Your task to perform on an android device: turn vacation reply on in the gmail app Image 0: 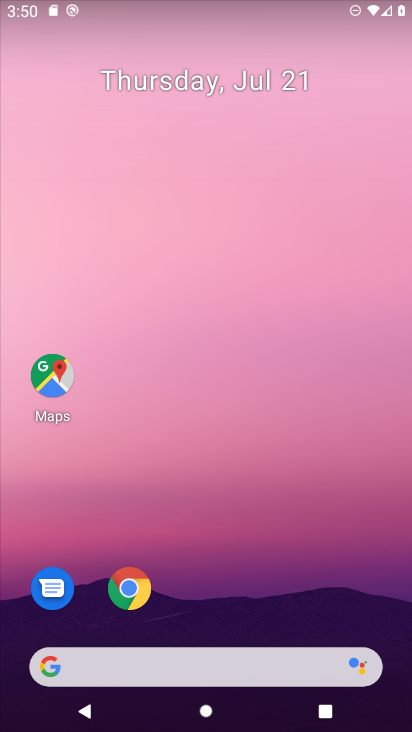
Step 0: drag from (232, 663) to (307, 0)
Your task to perform on an android device: turn vacation reply on in the gmail app Image 1: 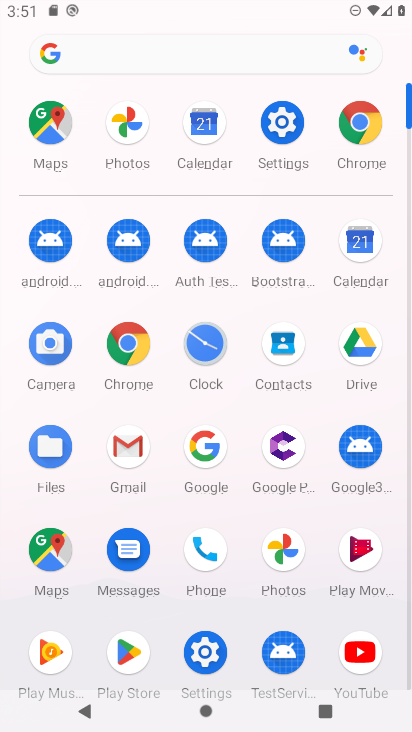
Step 1: click (129, 454)
Your task to perform on an android device: turn vacation reply on in the gmail app Image 2: 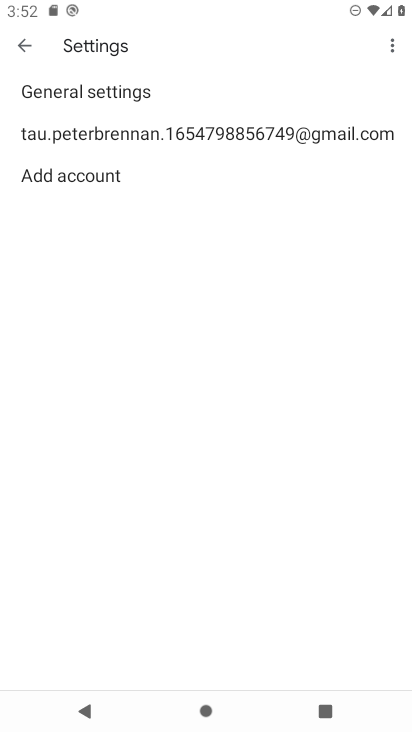
Step 2: click (238, 138)
Your task to perform on an android device: turn vacation reply on in the gmail app Image 3: 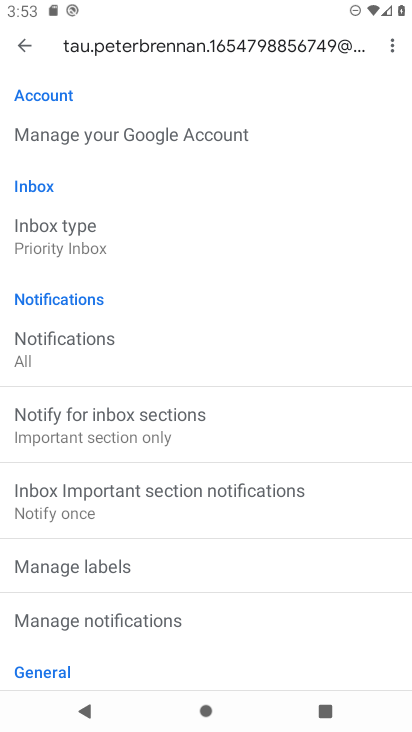
Step 3: drag from (151, 554) to (203, 229)
Your task to perform on an android device: turn vacation reply on in the gmail app Image 4: 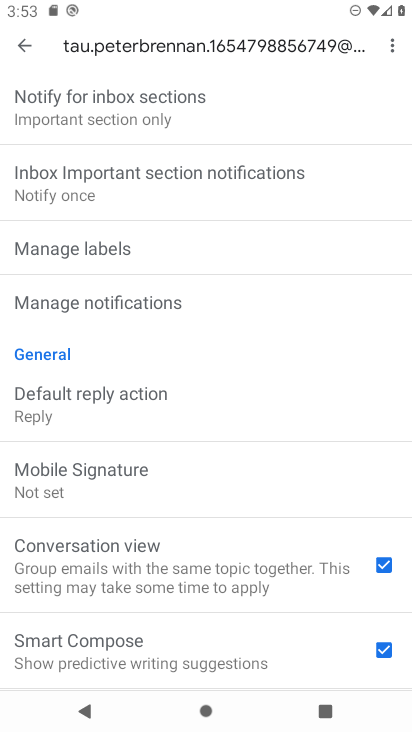
Step 4: drag from (159, 528) to (200, 115)
Your task to perform on an android device: turn vacation reply on in the gmail app Image 5: 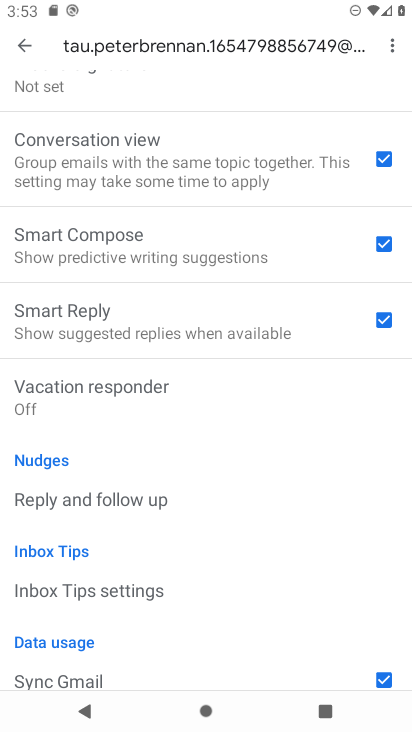
Step 5: click (207, 394)
Your task to perform on an android device: turn vacation reply on in the gmail app Image 6: 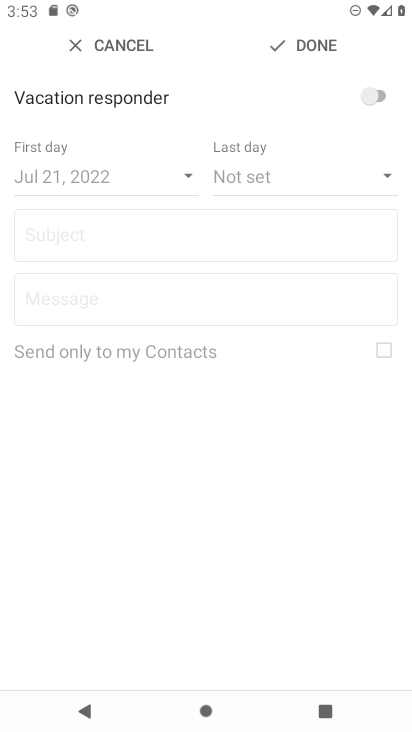
Step 6: click (387, 98)
Your task to perform on an android device: turn vacation reply on in the gmail app Image 7: 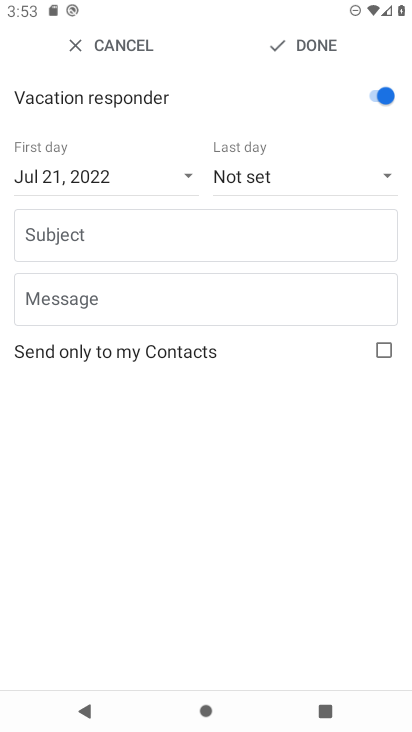
Step 7: task complete